Your task to perform on an android device: Go to internet settings Image 0: 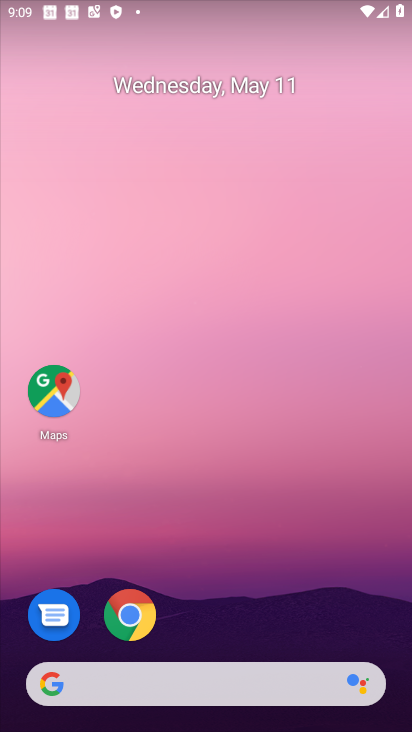
Step 0: drag from (60, 487) to (261, 38)
Your task to perform on an android device: Go to internet settings Image 1: 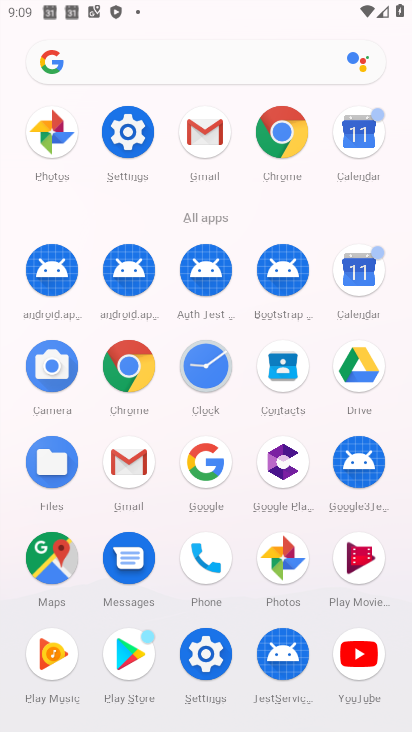
Step 1: click (115, 136)
Your task to perform on an android device: Go to internet settings Image 2: 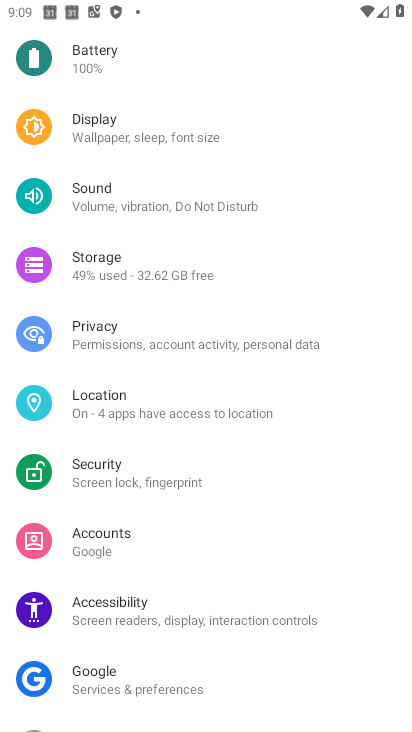
Step 2: drag from (148, 87) to (104, 608)
Your task to perform on an android device: Go to internet settings Image 3: 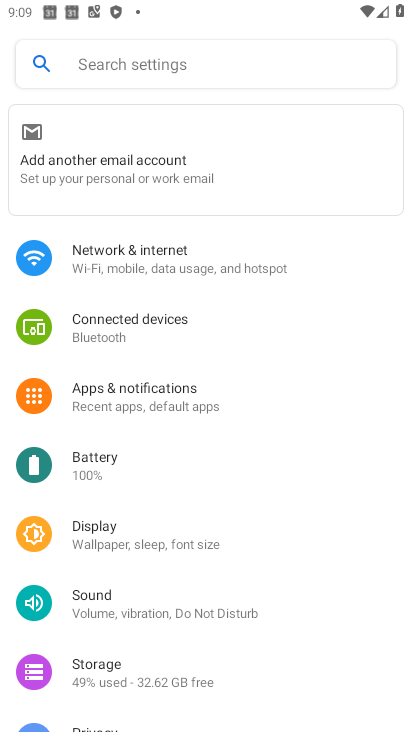
Step 3: click (170, 271)
Your task to perform on an android device: Go to internet settings Image 4: 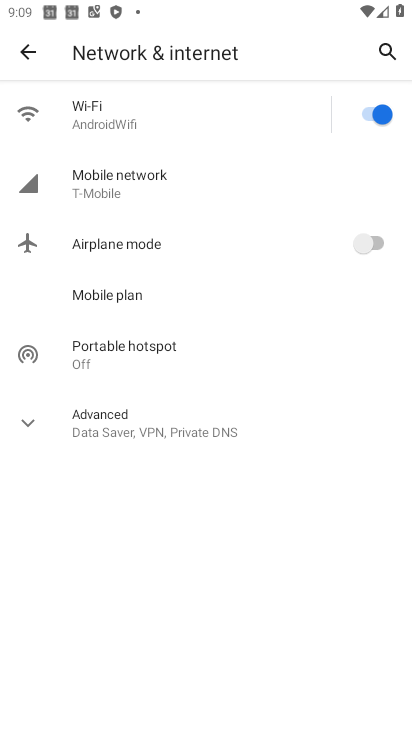
Step 4: click (204, 190)
Your task to perform on an android device: Go to internet settings Image 5: 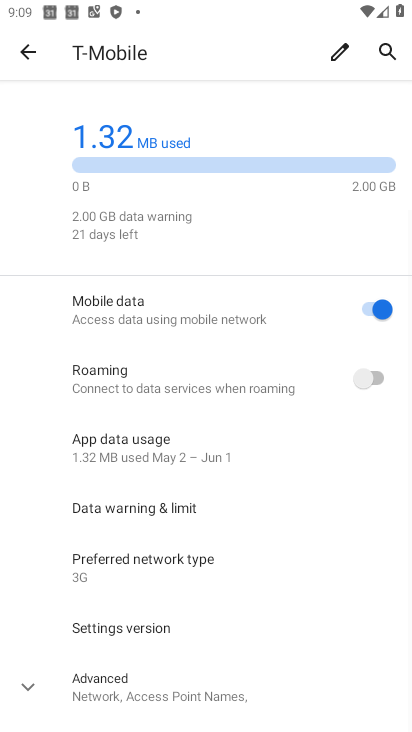
Step 5: task complete